Your task to perform on an android device: Open Google Maps and go to "Timeline" Image 0: 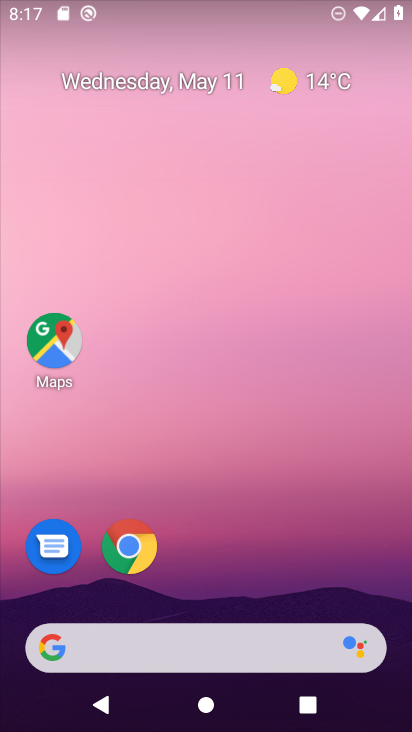
Step 0: click (52, 344)
Your task to perform on an android device: Open Google Maps and go to "Timeline" Image 1: 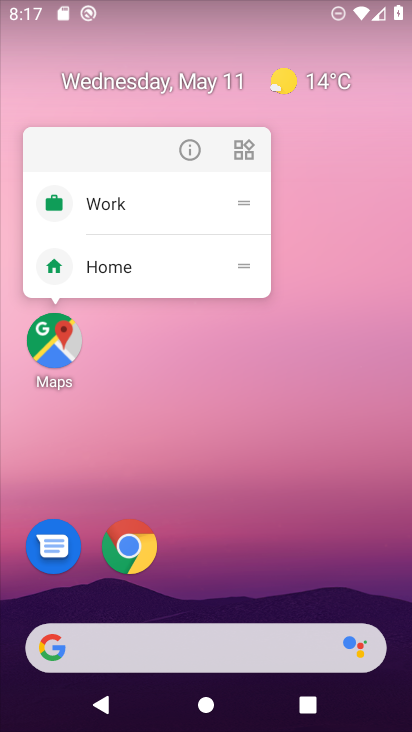
Step 1: click (52, 344)
Your task to perform on an android device: Open Google Maps and go to "Timeline" Image 2: 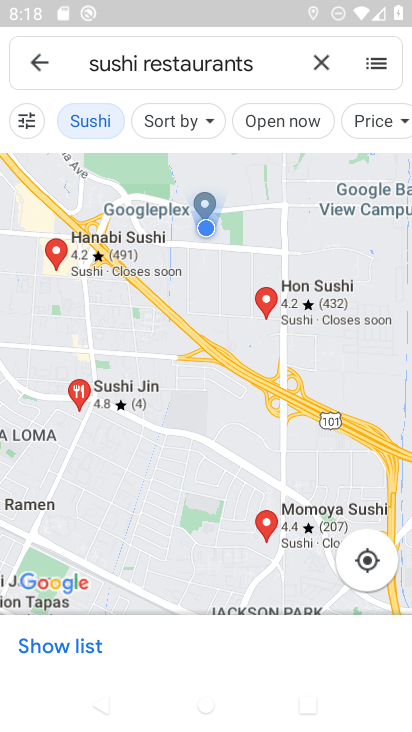
Step 2: click (40, 61)
Your task to perform on an android device: Open Google Maps and go to "Timeline" Image 3: 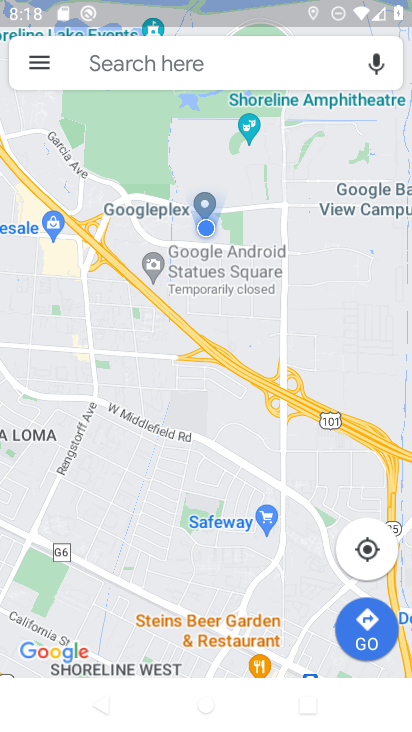
Step 3: click (40, 61)
Your task to perform on an android device: Open Google Maps and go to "Timeline" Image 4: 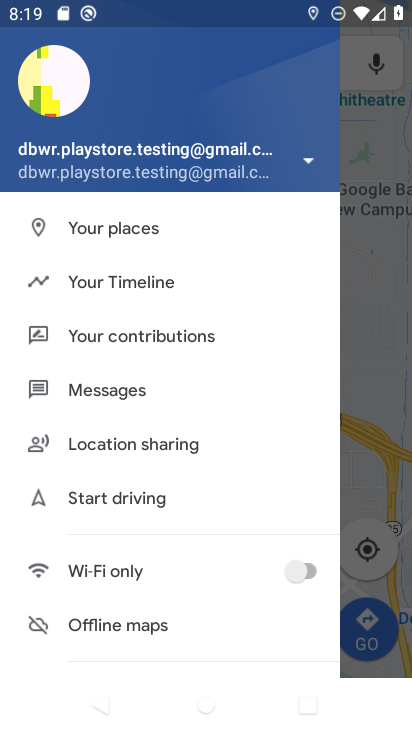
Step 4: click (149, 274)
Your task to perform on an android device: Open Google Maps and go to "Timeline" Image 5: 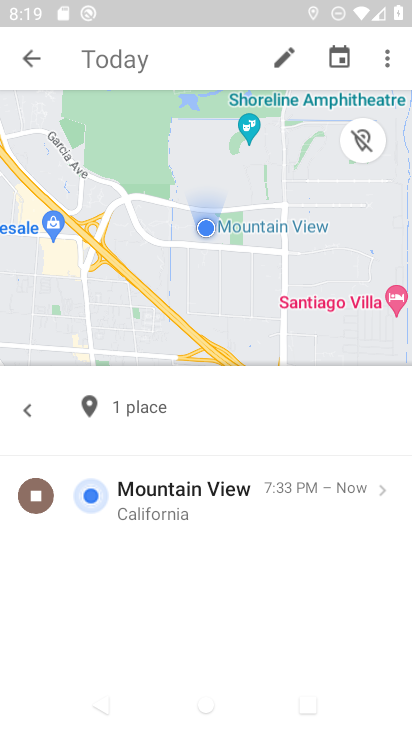
Step 5: task complete